Your task to perform on an android device: check battery use Image 0: 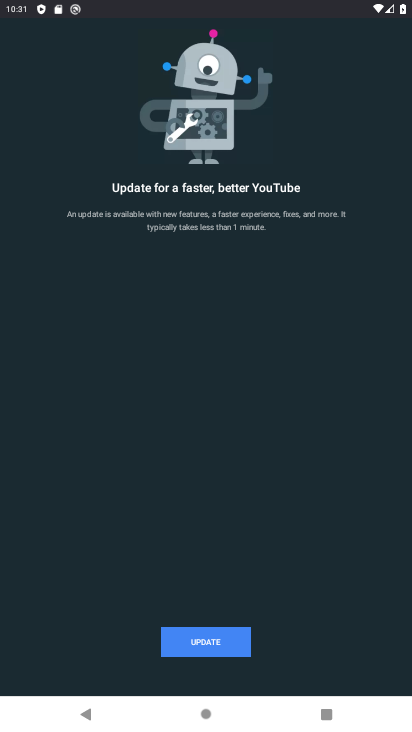
Step 0: drag from (198, 640) to (109, 222)
Your task to perform on an android device: check battery use Image 1: 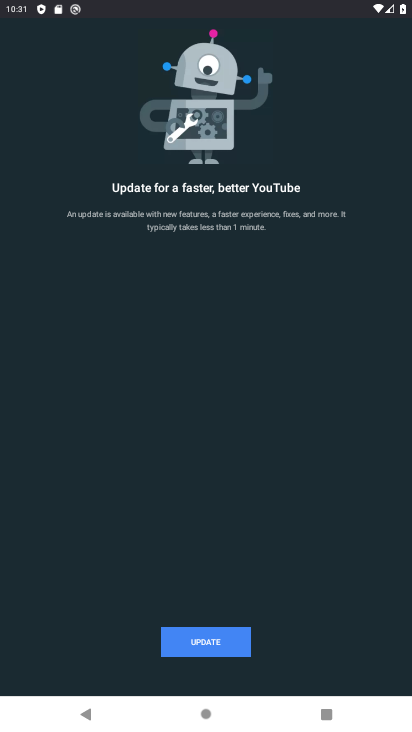
Step 1: press home button
Your task to perform on an android device: check battery use Image 2: 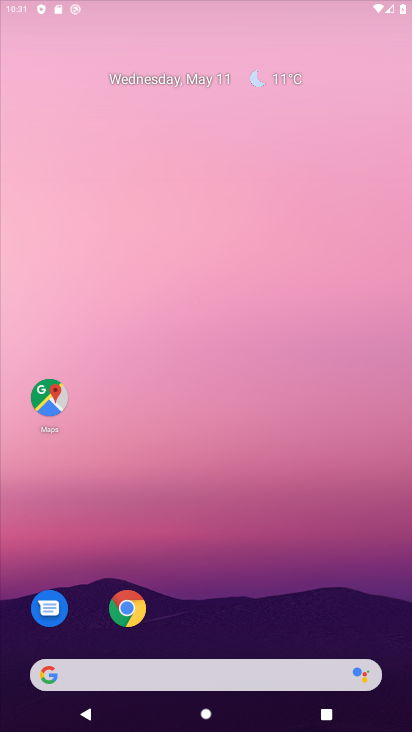
Step 2: drag from (202, 522) to (214, 129)
Your task to perform on an android device: check battery use Image 3: 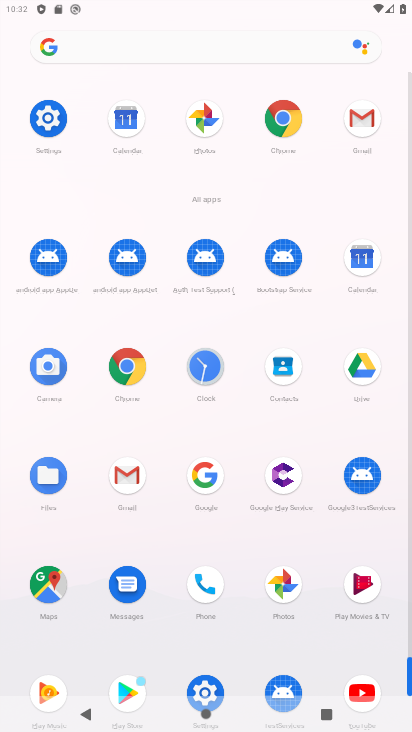
Step 3: click (205, 683)
Your task to perform on an android device: check battery use Image 4: 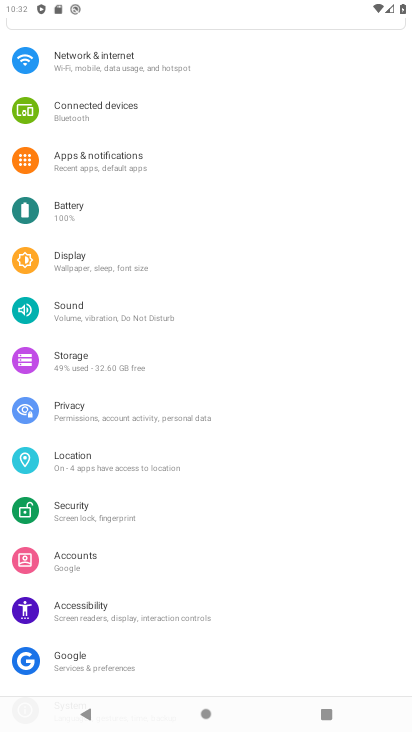
Step 4: click (114, 218)
Your task to perform on an android device: check battery use Image 5: 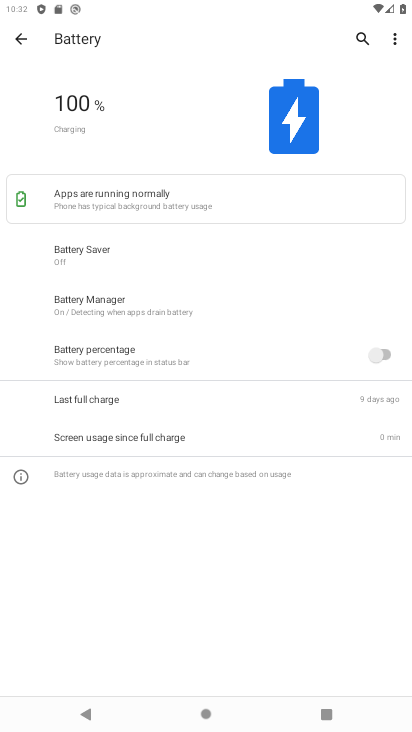
Step 5: task complete